Your task to perform on an android device: uninstall "Google Docs" Image 0: 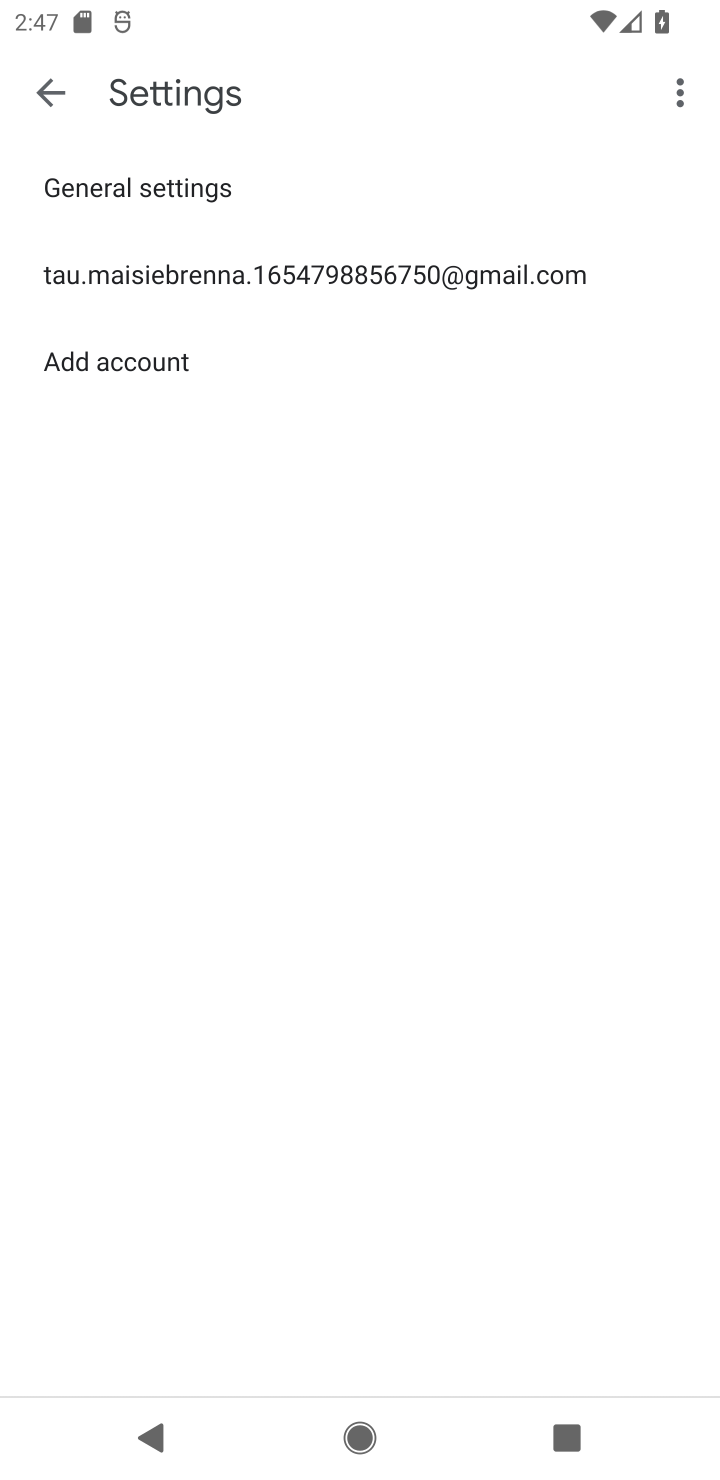
Step 0: press home button
Your task to perform on an android device: uninstall "Google Docs" Image 1: 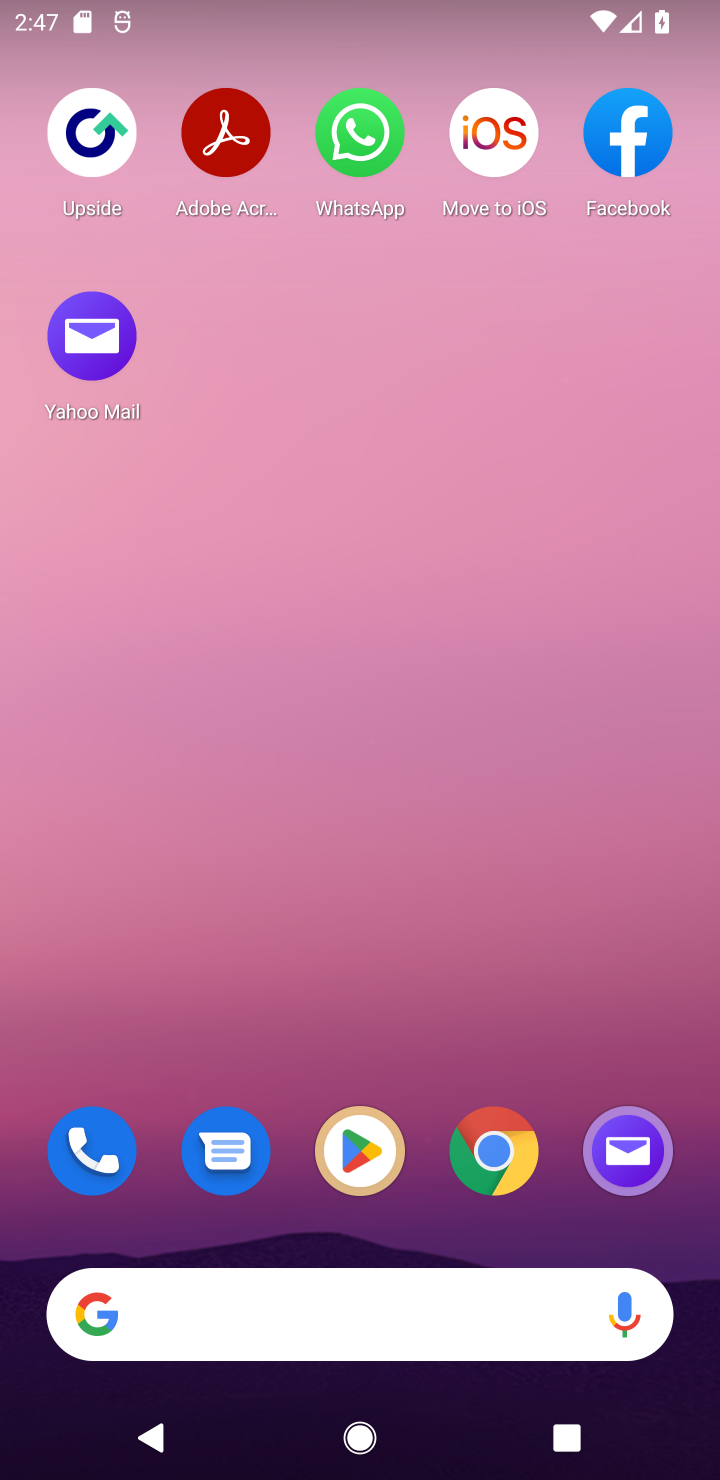
Step 1: click (370, 1160)
Your task to perform on an android device: uninstall "Google Docs" Image 2: 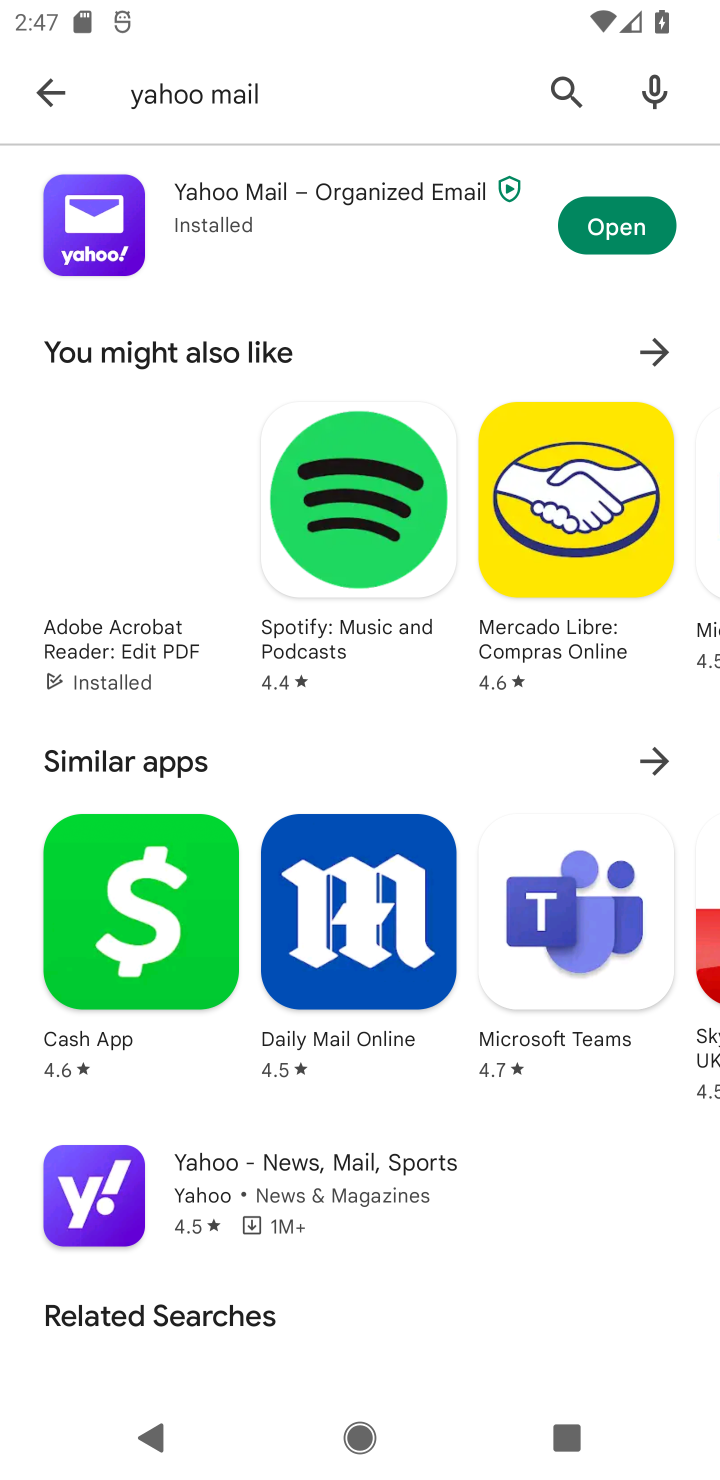
Step 2: click (551, 113)
Your task to perform on an android device: uninstall "Google Docs" Image 3: 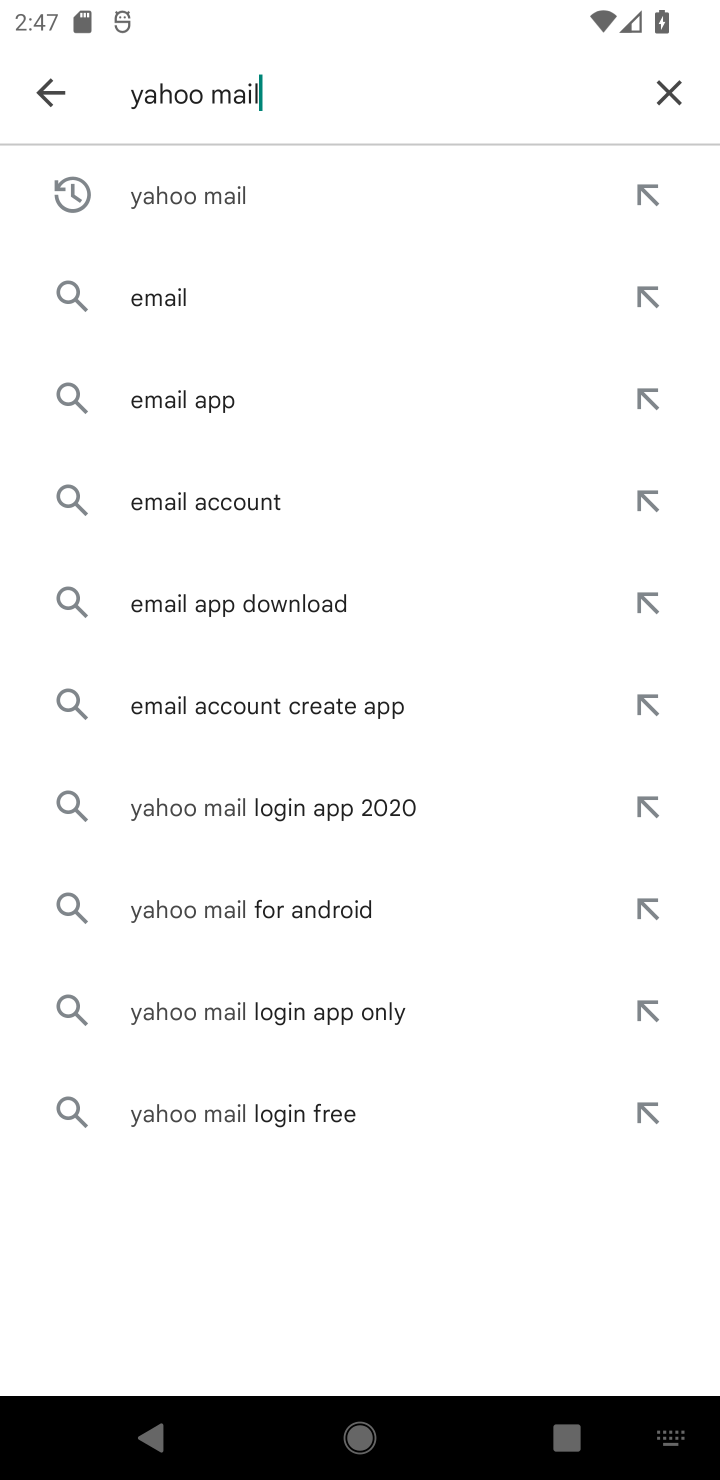
Step 3: click (686, 102)
Your task to perform on an android device: uninstall "Google Docs" Image 4: 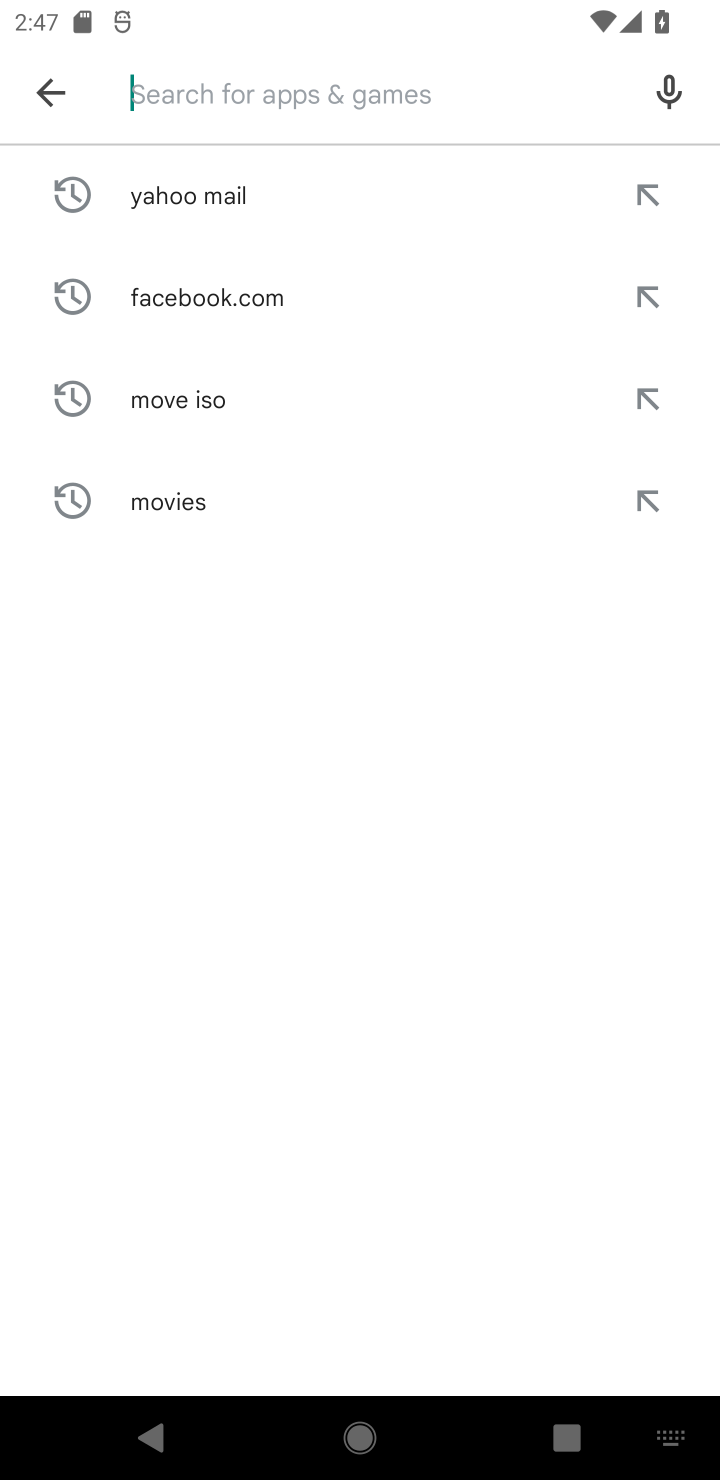
Step 4: type "google doc"
Your task to perform on an android device: uninstall "Google Docs" Image 5: 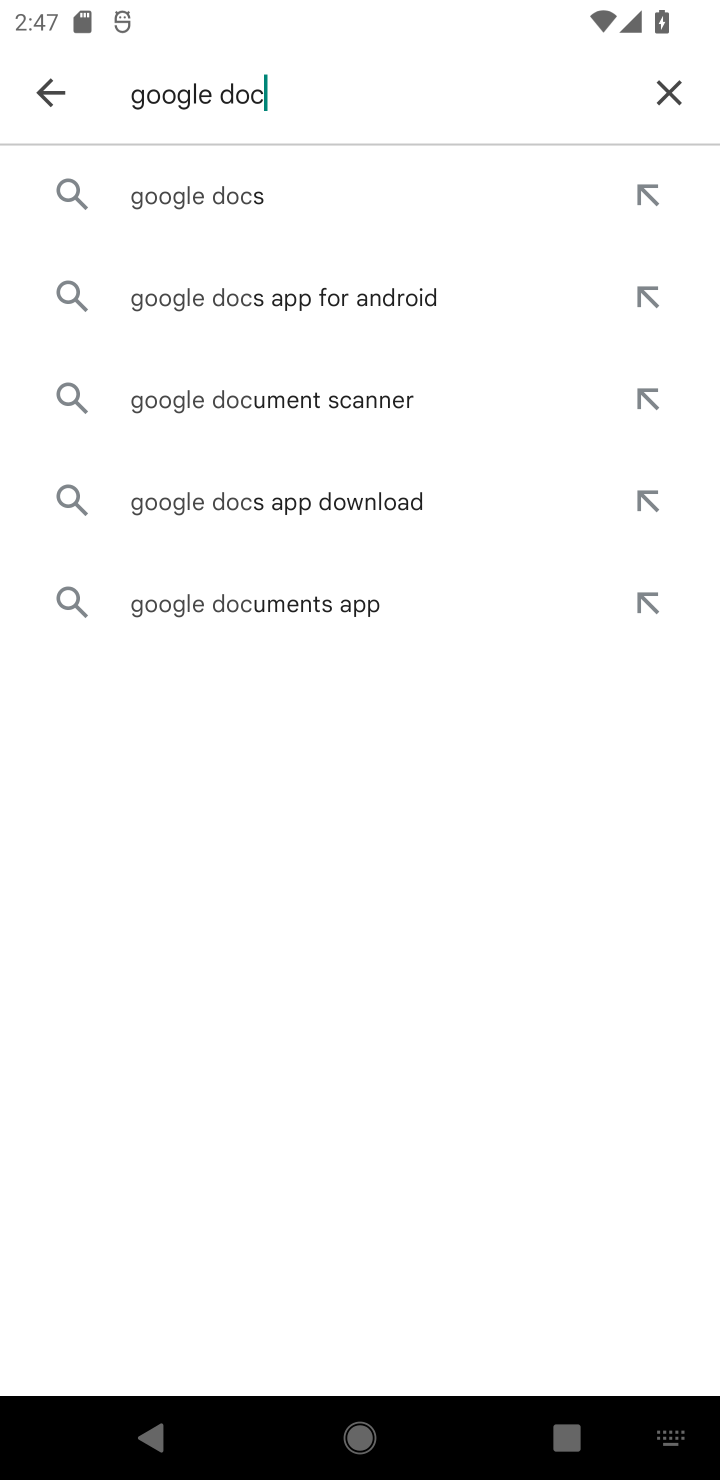
Step 5: click (177, 186)
Your task to perform on an android device: uninstall "Google Docs" Image 6: 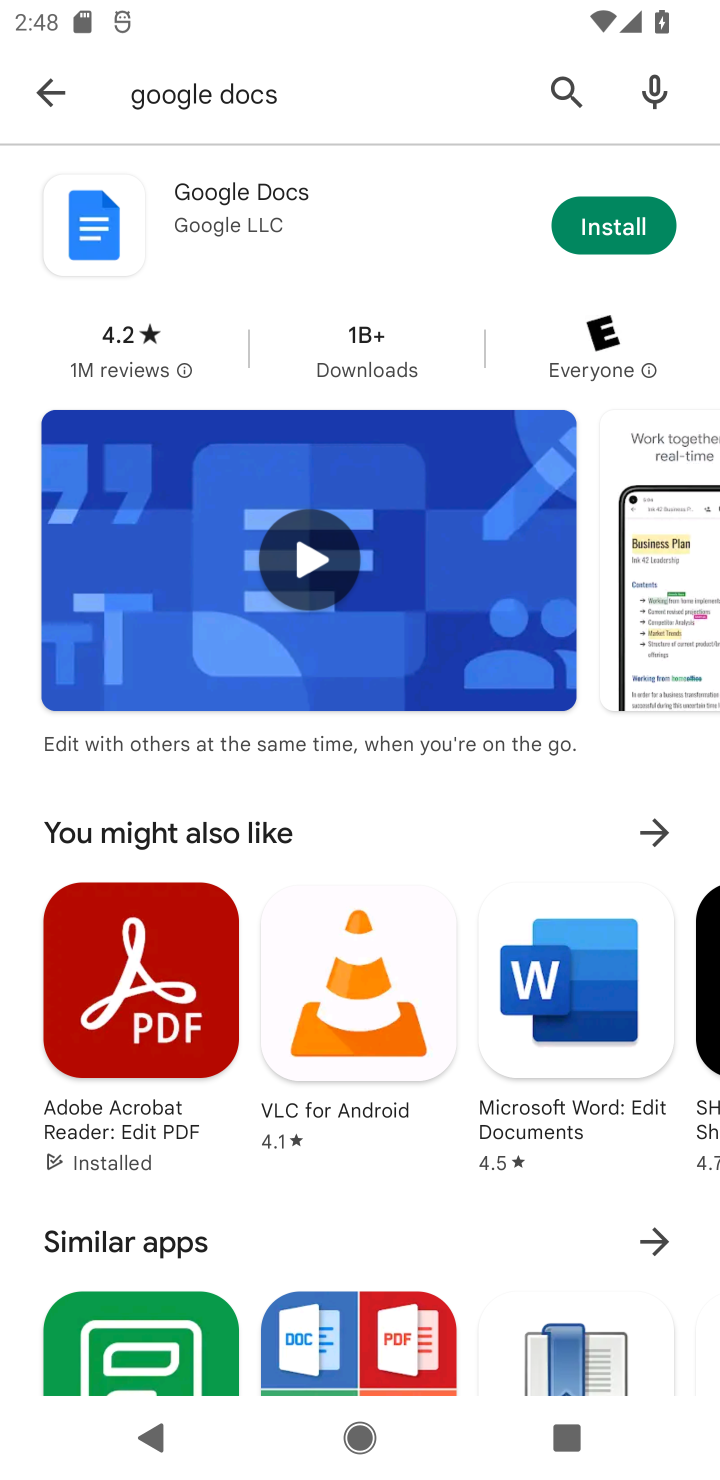
Step 6: click (619, 247)
Your task to perform on an android device: uninstall "Google Docs" Image 7: 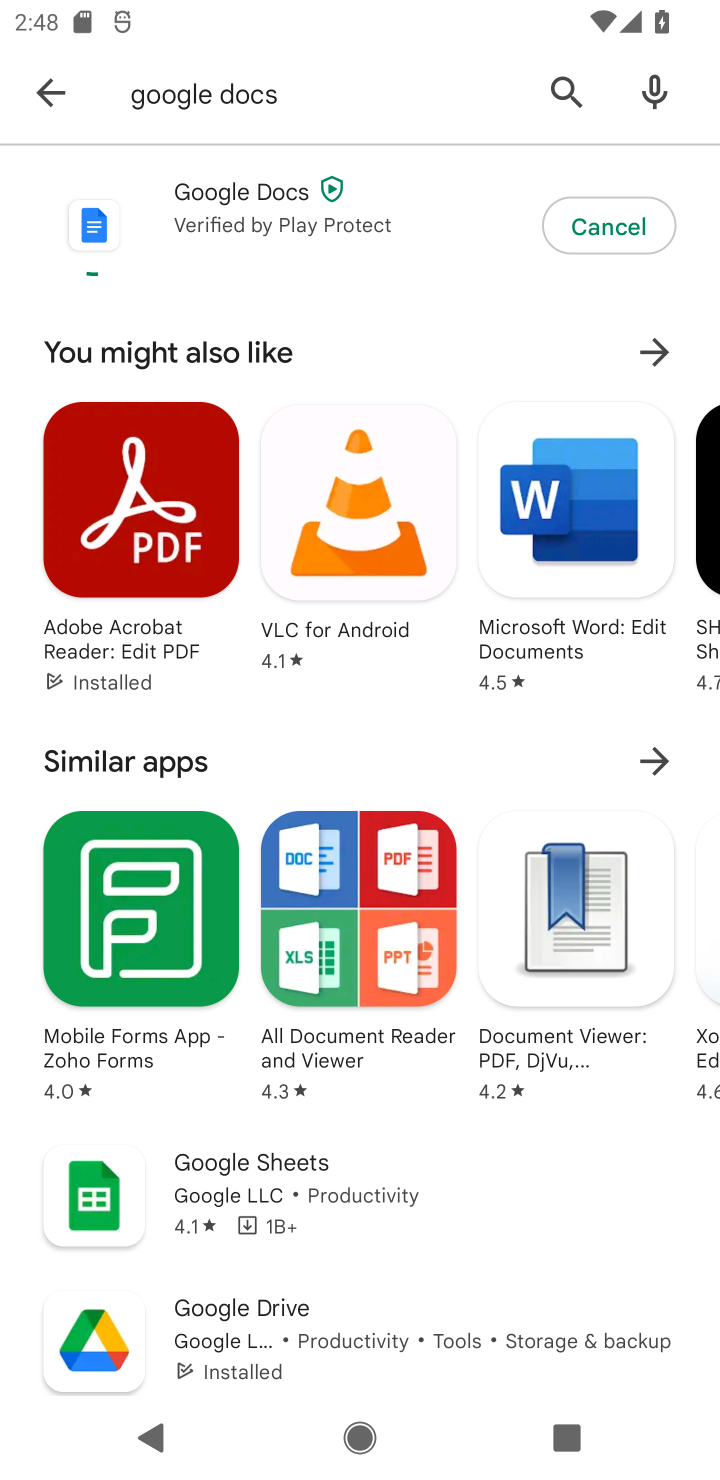
Step 7: task complete